Your task to perform on an android device: open app "WhatsApp Messenger" (install if not already installed) Image 0: 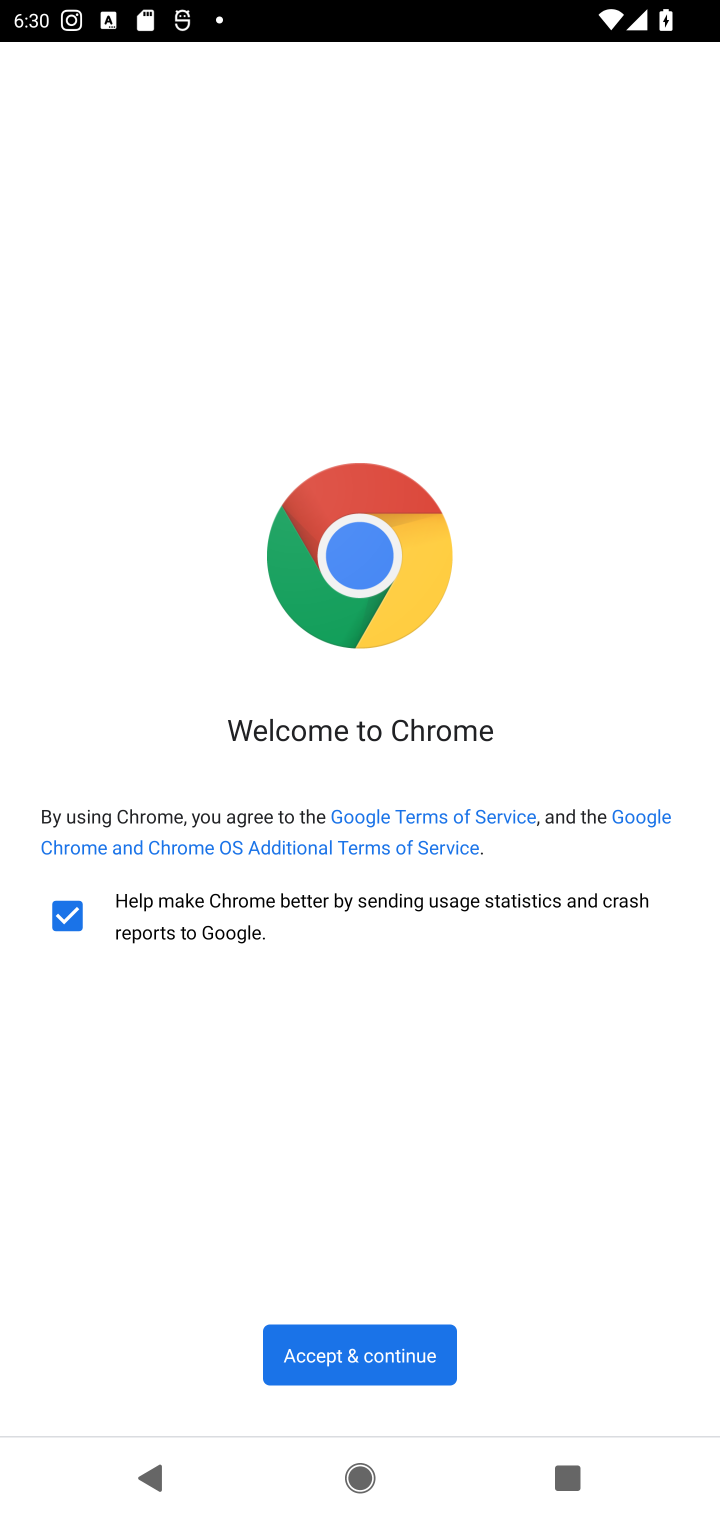
Step 0: press home button
Your task to perform on an android device: open app "WhatsApp Messenger" (install if not already installed) Image 1: 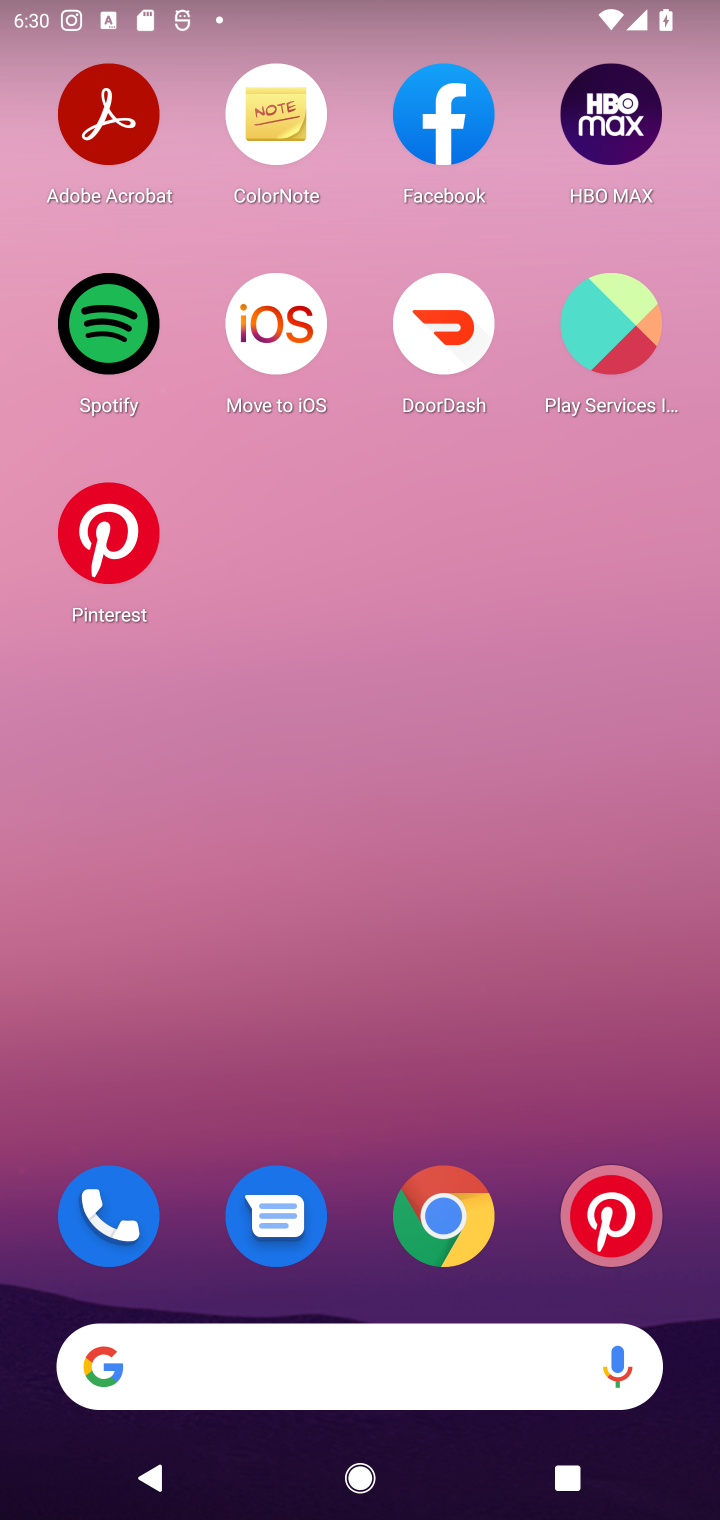
Step 1: drag from (335, 1082) to (370, 440)
Your task to perform on an android device: open app "WhatsApp Messenger" (install if not already installed) Image 2: 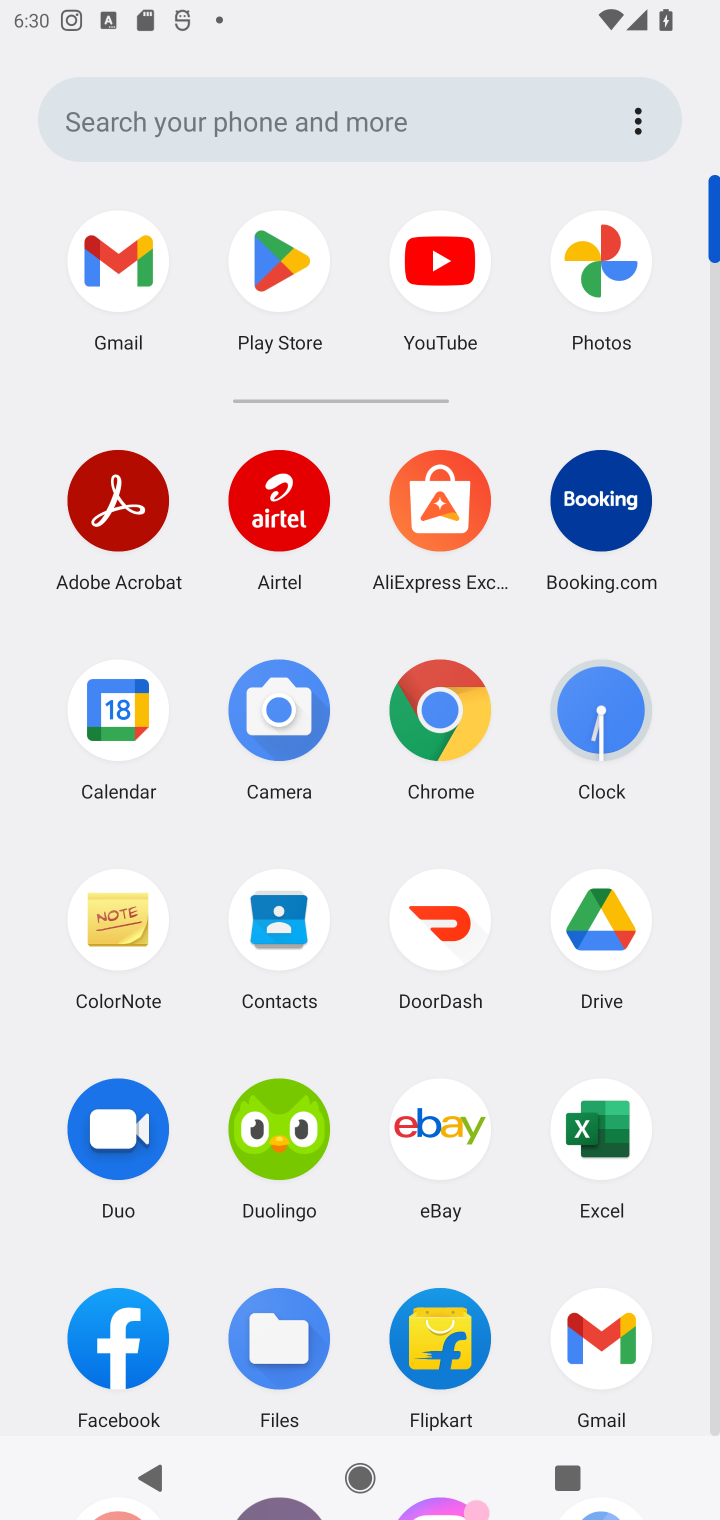
Step 2: click (304, 273)
Your task to perform on an android device: open app "WhatsApp Messenger" (install if not already installed) Image 3: 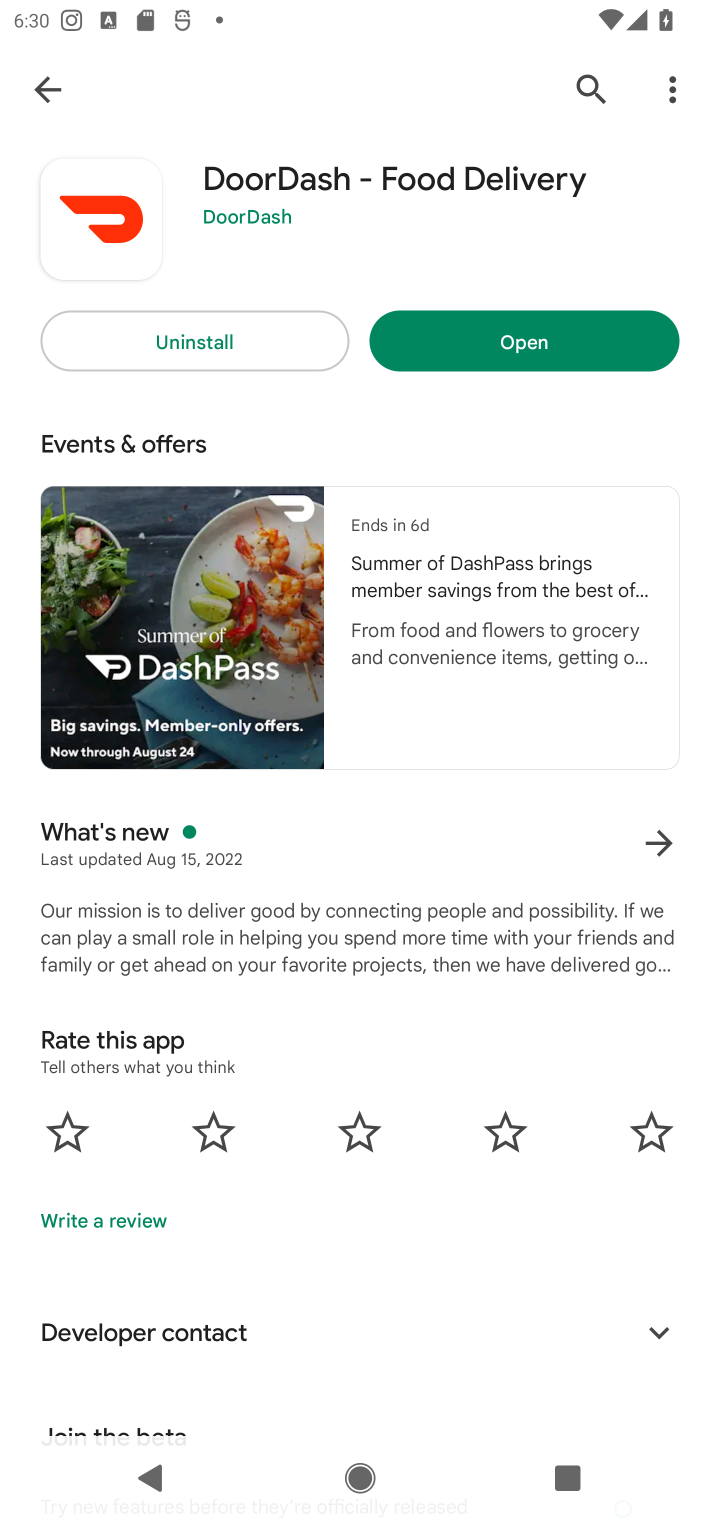
Step 3: click (596, 78)
Your task to perform on an android device: open app "WhatsApp Messenger" (install if not already installed) Image 4: 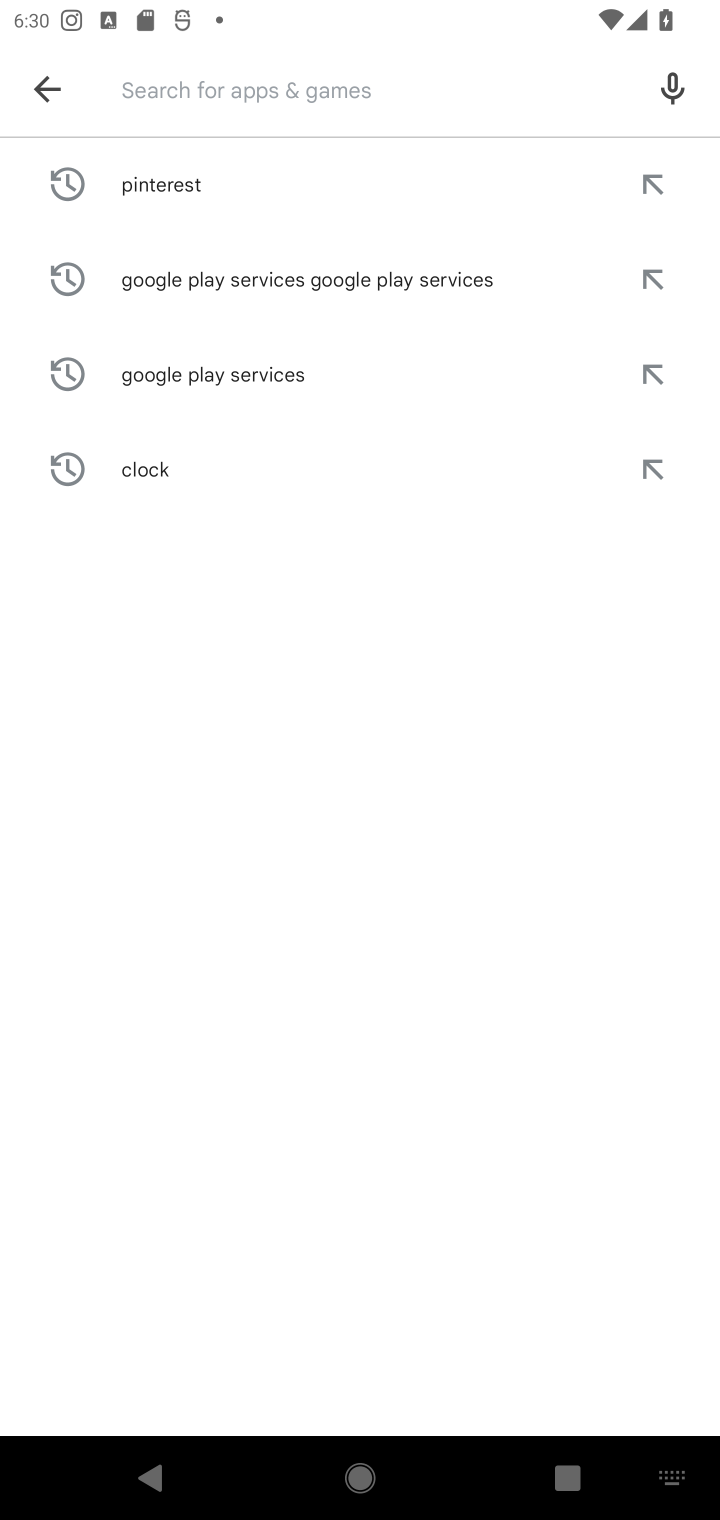
Step 4: type "WhatsApp Messenger"
Your task to perform on an android device: open app "WhatsApp Messenger" (install if not already installed) Image 5: 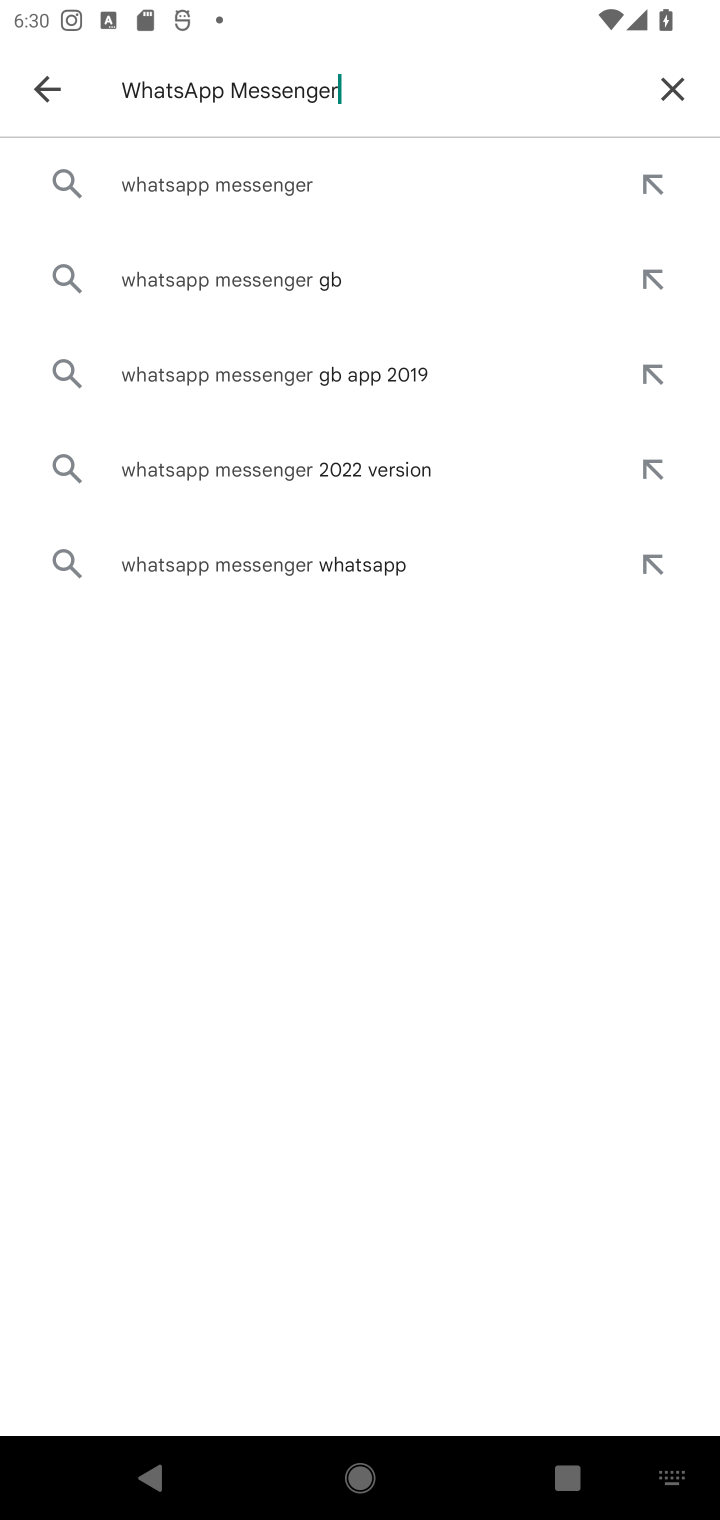
Step 5: click (292, 178)
Your task to perform on an android device: open app "WhatsApp Messenger" (install if not already installed) Image 6: 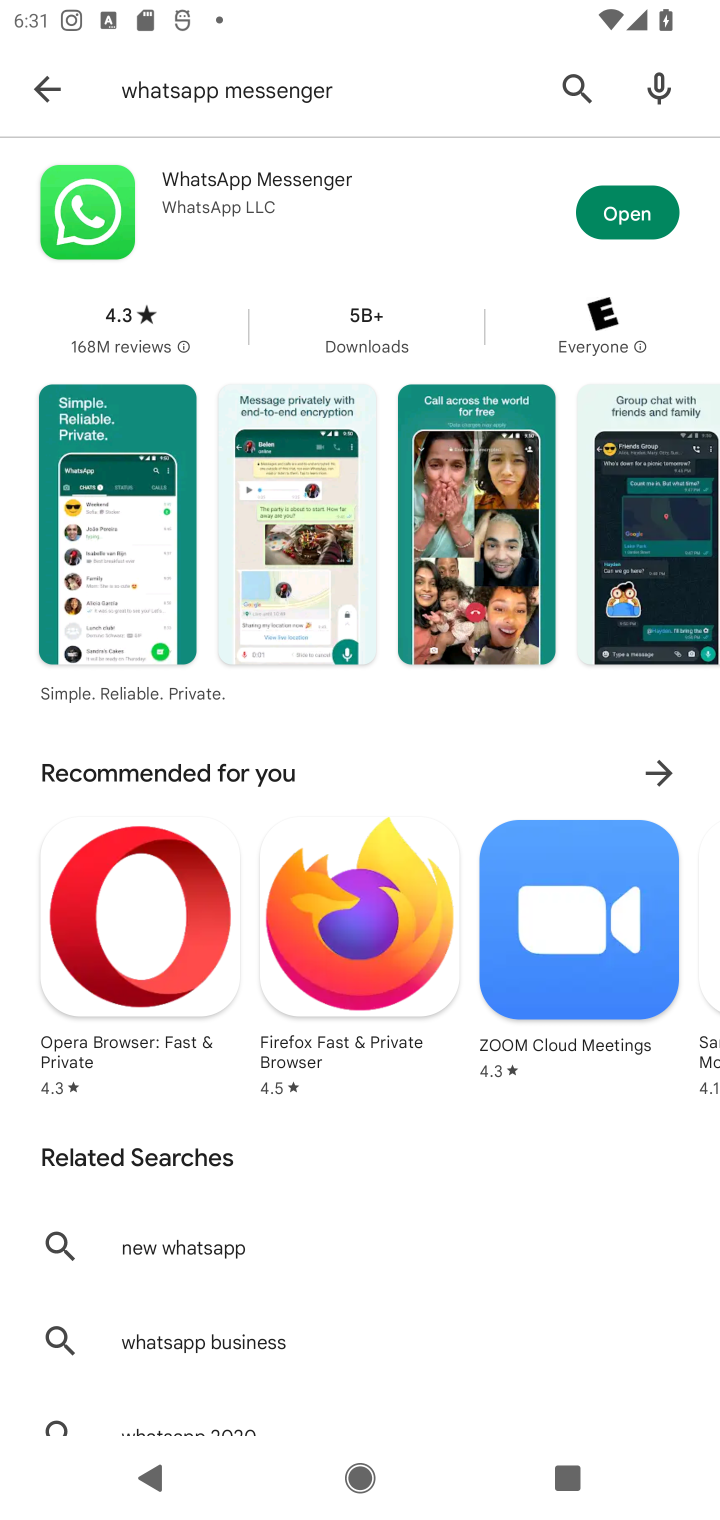
Step 6: click (600, 220)
Your task to perform on an android device: open app "WhatsApp Messenger" (install if not already installed) Image 7: 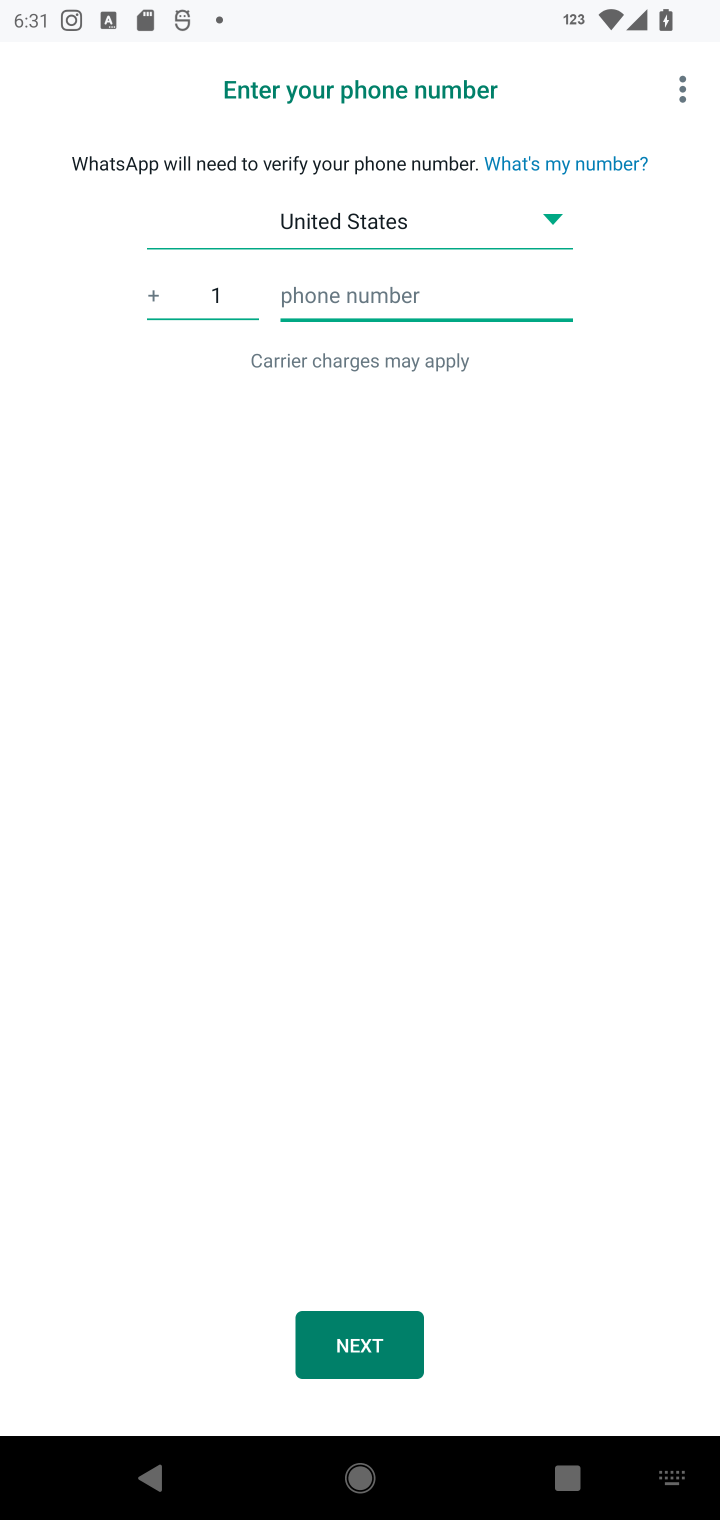
Step 7: task complete